Your task to perform on an android device: see sites visited before in the chrome app Image 0: 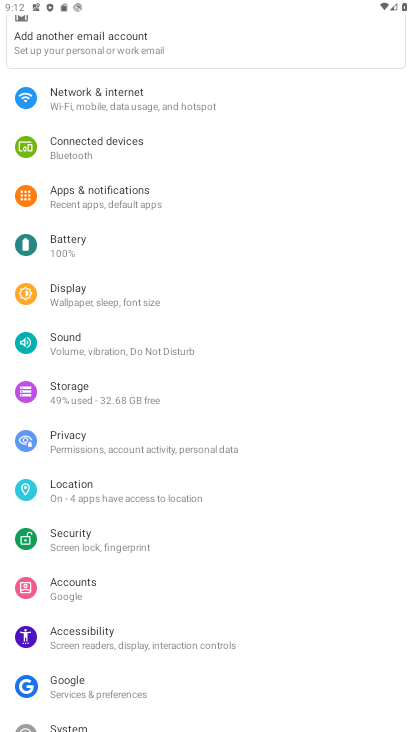
Step 0: press home button
Your task to perform on an android device: see sites visited before in the chrome app Image 1: 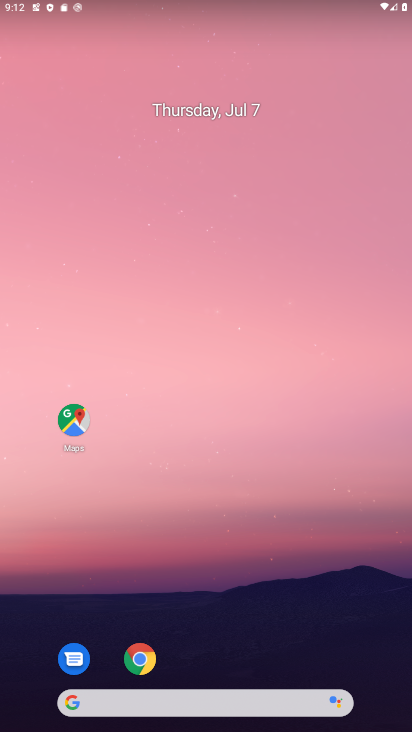
Step 1: click (136, 656)
Your task to perform on an android device: see sites visited before in the chrome app Image 2: 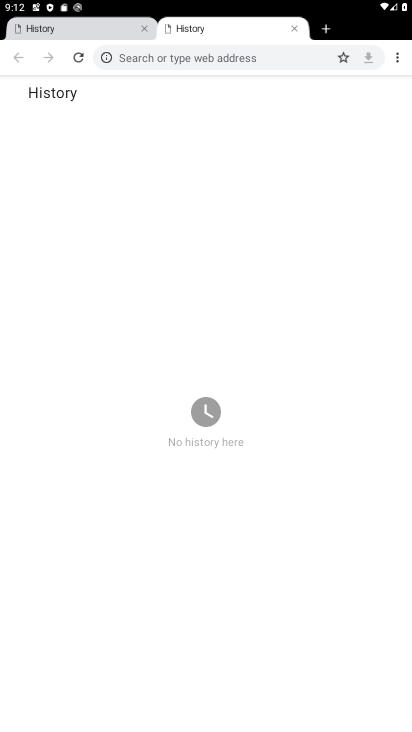
Step 2: click (398, 58)
Your task to perform on an android device: see sites visited before in the chrome app Image 3: 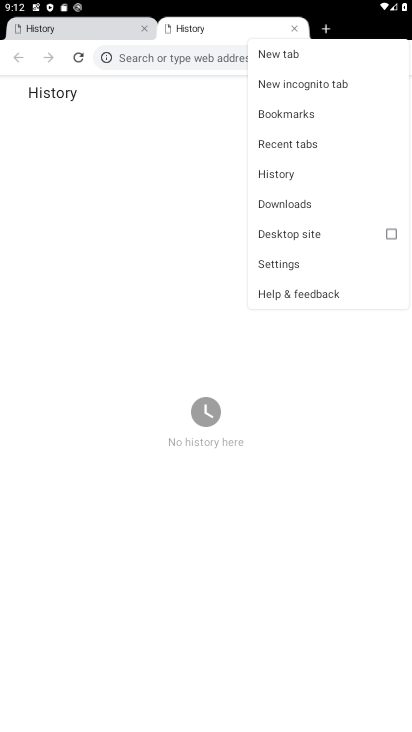
Step 3: click (328, 147)
Your task to perform on an android device: see sites visited before in the chrome app Image 4: 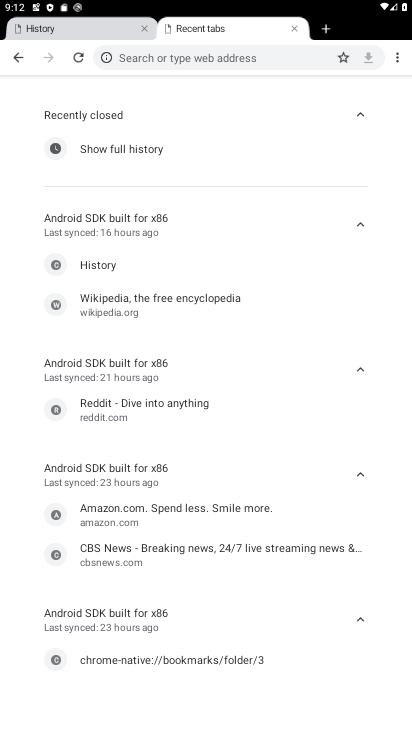
Step 4: task complete